Your task to perform on an android device: Open network settings Image 0: 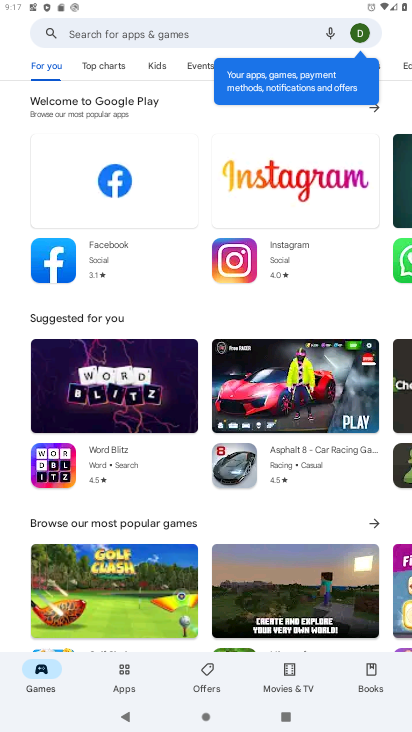
Step 0: press home button
Your task to perform on an android device: Open network settings Image 1: 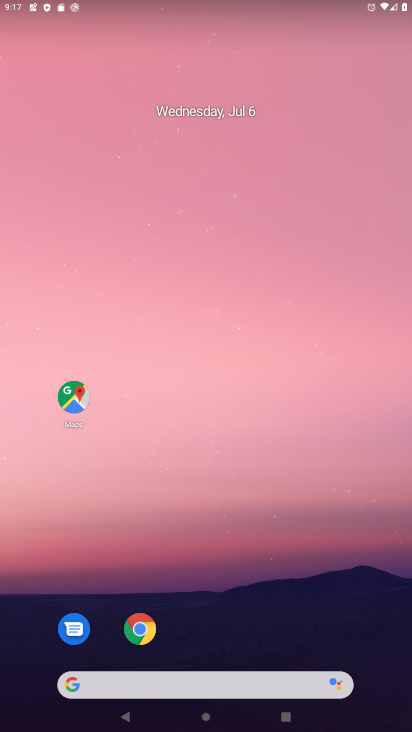
Step 1: drag from (185, 717) to (272, 32)
Your task to perform on an android device: Open network settings Image 2: 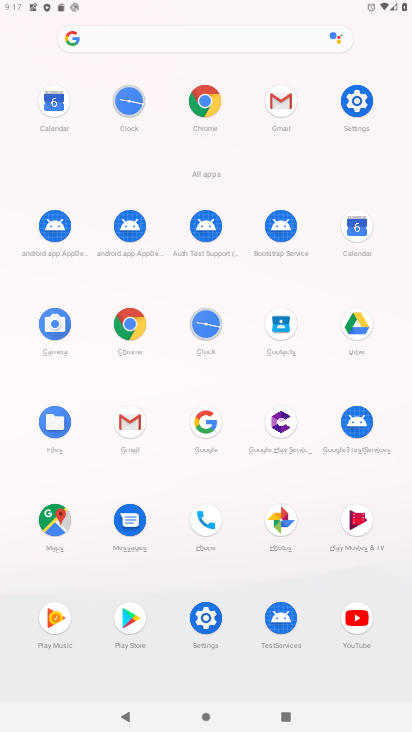
Step 2: click (362, 89)
Your task to perform on an android device: Open network settings Image 3: 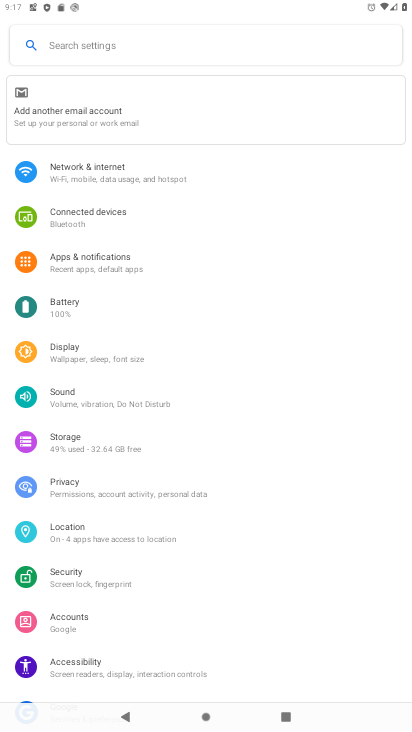
Step 3: click (69, 171)
Your task to perform on an android device: Open network settings Image 4: 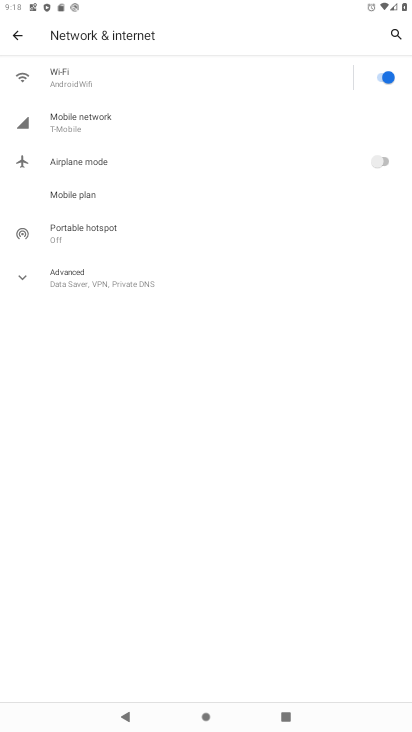
Step 4: click (118, 119)
Your task to perform on an android device: Open network settings Image 5: 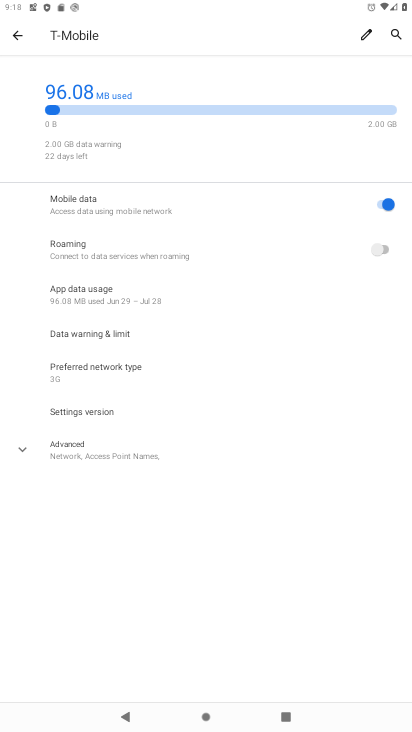
Step 5: task complete